Your task to perform on an android device: Go to Amazon Image 0: 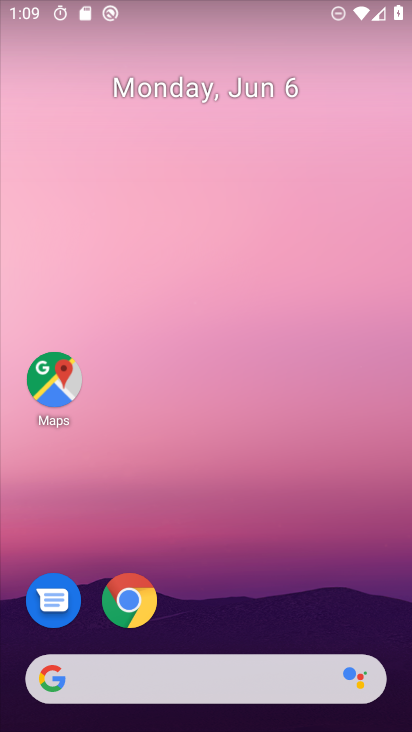
Step 0: click (128, 608)
Your task to perform on an android device: Go to Amazon Image 1: 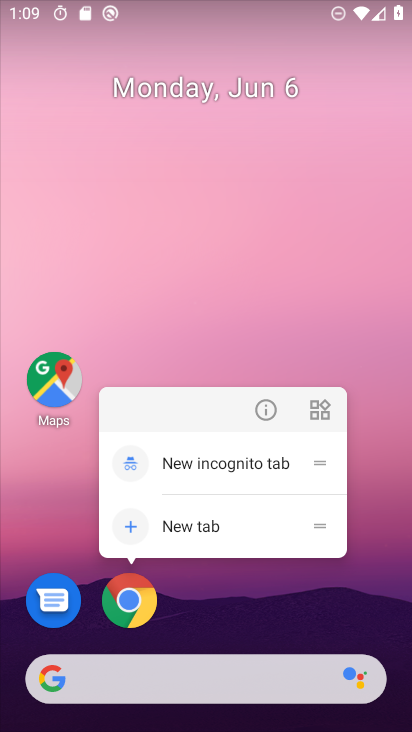
Step 1: click (146, 593)
Your task to perform on an android device: Go to Amazon Image 2: 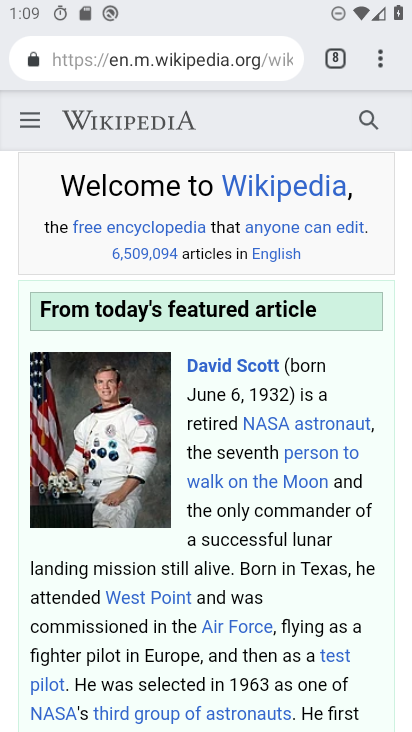
Step 2: click (334, 56)
Your task to perform on an android device: Go to Amazon Image 3: 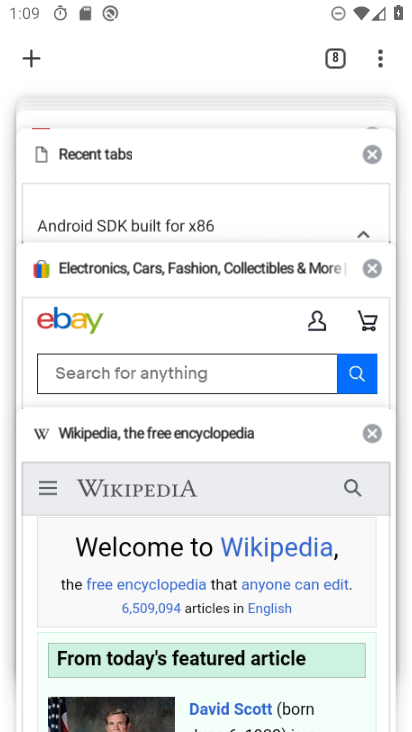
Step 3: drag from (169, 179) to (169, 454)
Your task to perform on an android device: Go to Amazon Image 4: 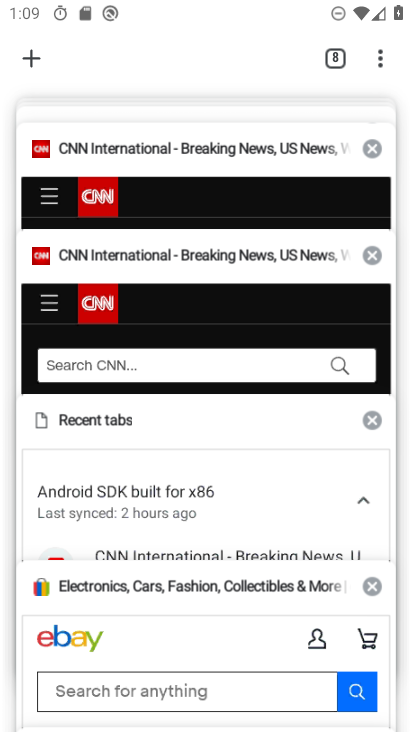
Step 4: drag from (167, 184) to (192, 473)
Your task to perform on an android device: Go to Amazon Image 5: 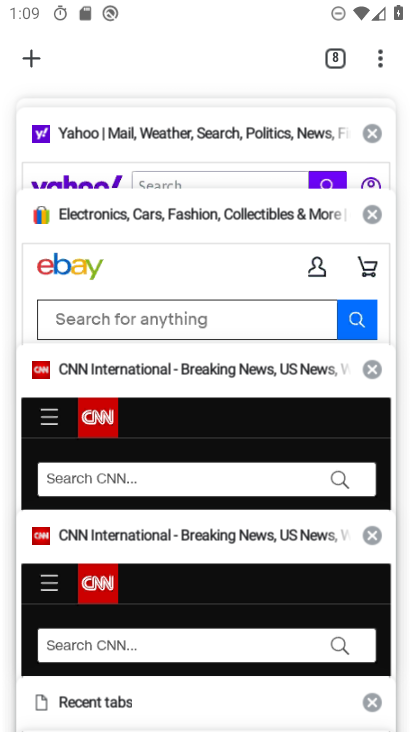
Step 5: drag from (195, 164) to (224, 479)
Your task to perform on an android device: Go to Amazon Image 6: 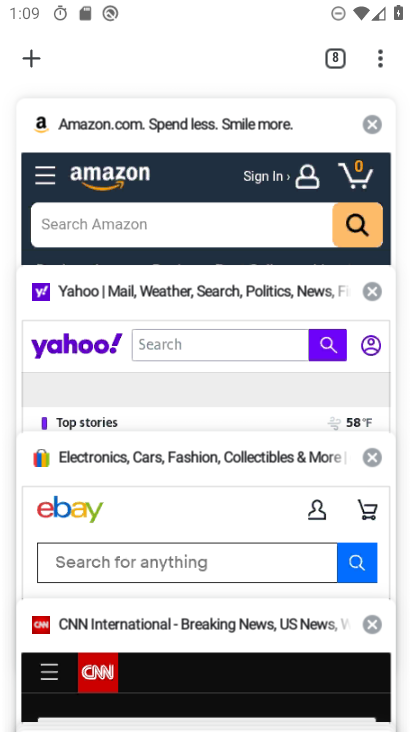
Step 6: click (156, 218)
Your task to perform on an android device: Go to Amazon Image 7: 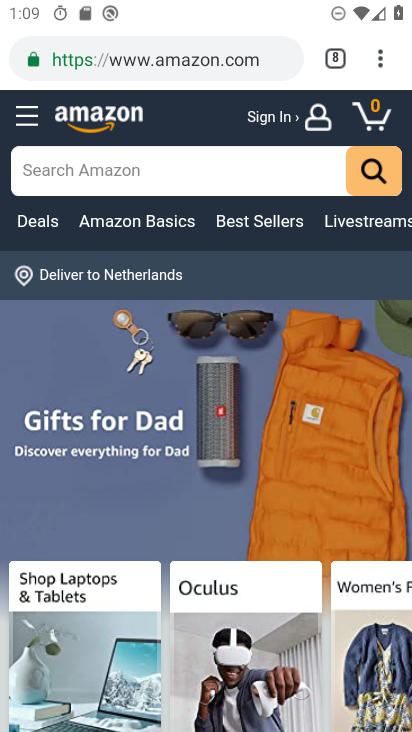
Step 7: task complete